Your task to perform on an android device: Find coffee shops on Maps Image 0: 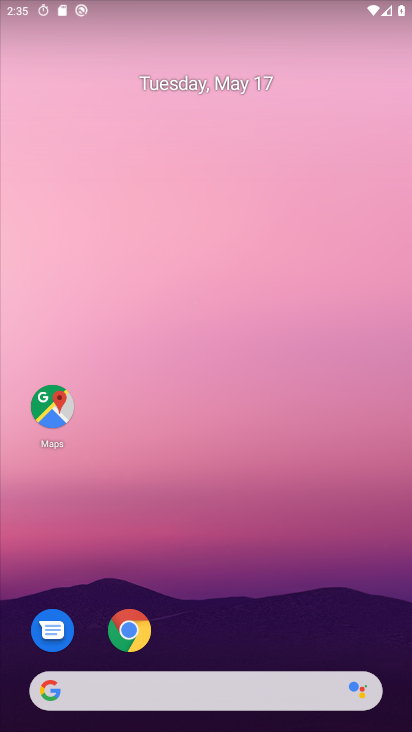
Step 0: click (50, 416)
Your task to perform on an android device: Find coffee shops on Maps Image 1: 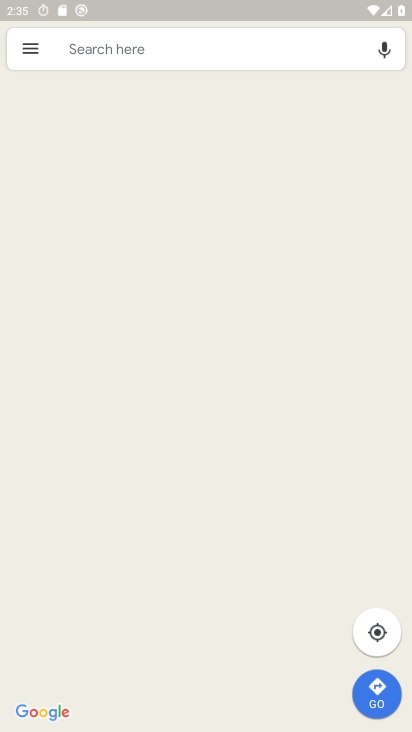
Step 1: click (212, 45)
Your task to perform on an android device: Find coffee shops on Maps Image 2: 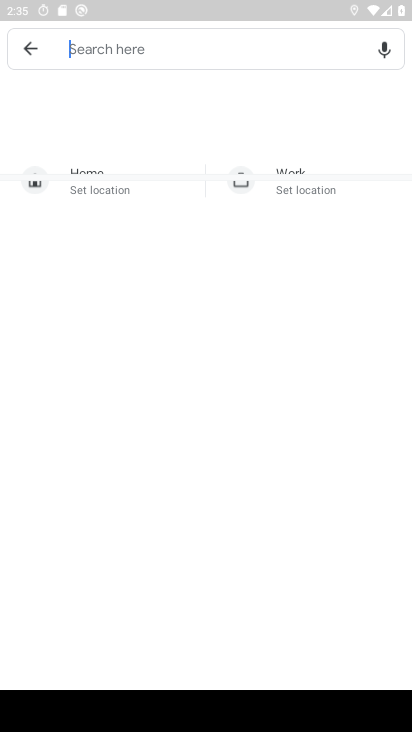
Step 2: type "coffee shops"
Your task to perform on an android device: Find coffee shops on Maps Image 3: 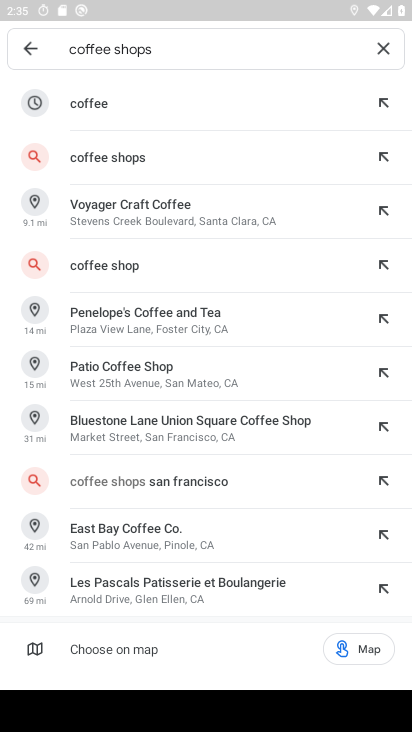
Step 3: click (146, 162)
Your task to perform on an android device: Find coffee shops on Maps Image 4: 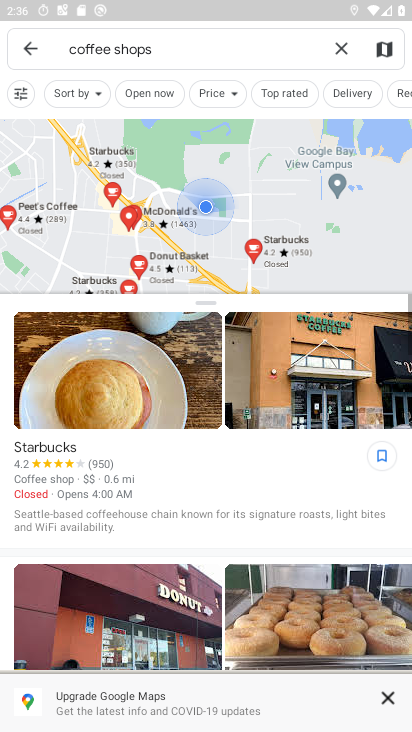
Step 4: task complete